Your task to perform on an android device: Open Wikipedia Image 0: 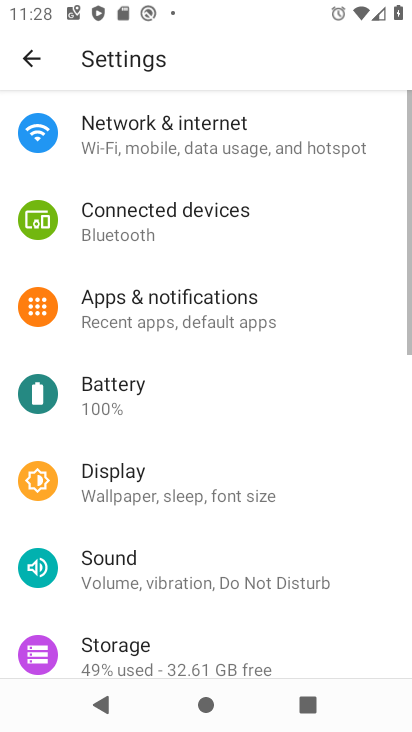
Step 0: press home button
Your task to perform on an android device: Open Wikipedia Image 1: 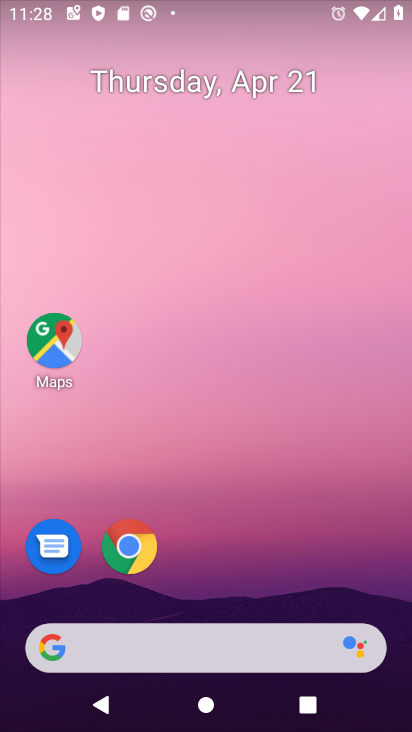
Step 1: click (130, 545)
Your task to perform on an android device: Open Wikipedia Image 2: 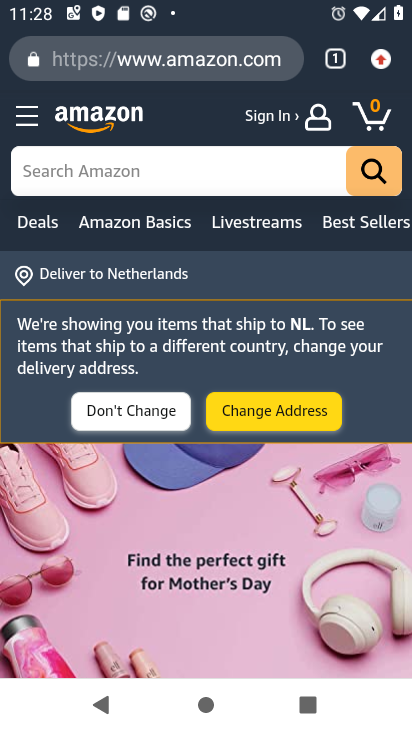
Step 2: press back button
Your task to perform on an android device: Open Wikipedia Image 3: 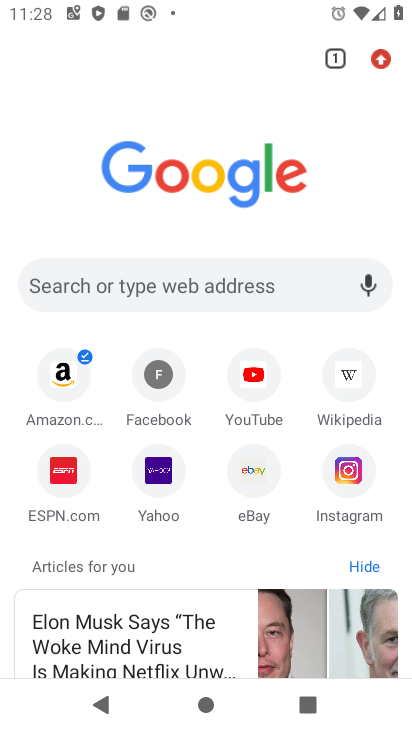
Step 3: click (347, 378)
Your task to perform on an android device: Open Wikipedia Image 4: 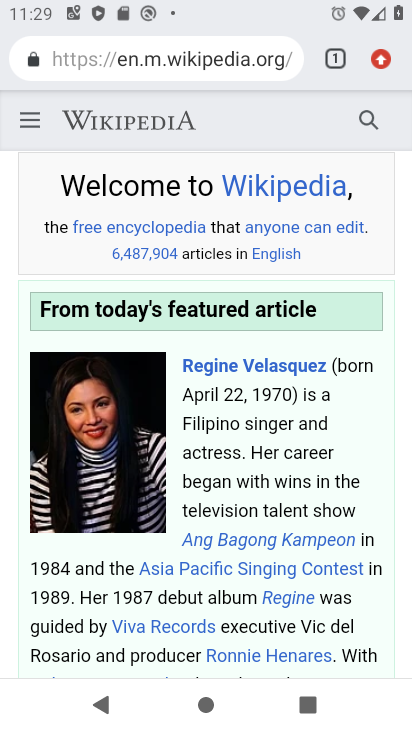
Step 4: task complete